Your task to perform on an android device: Open maps Image 0: 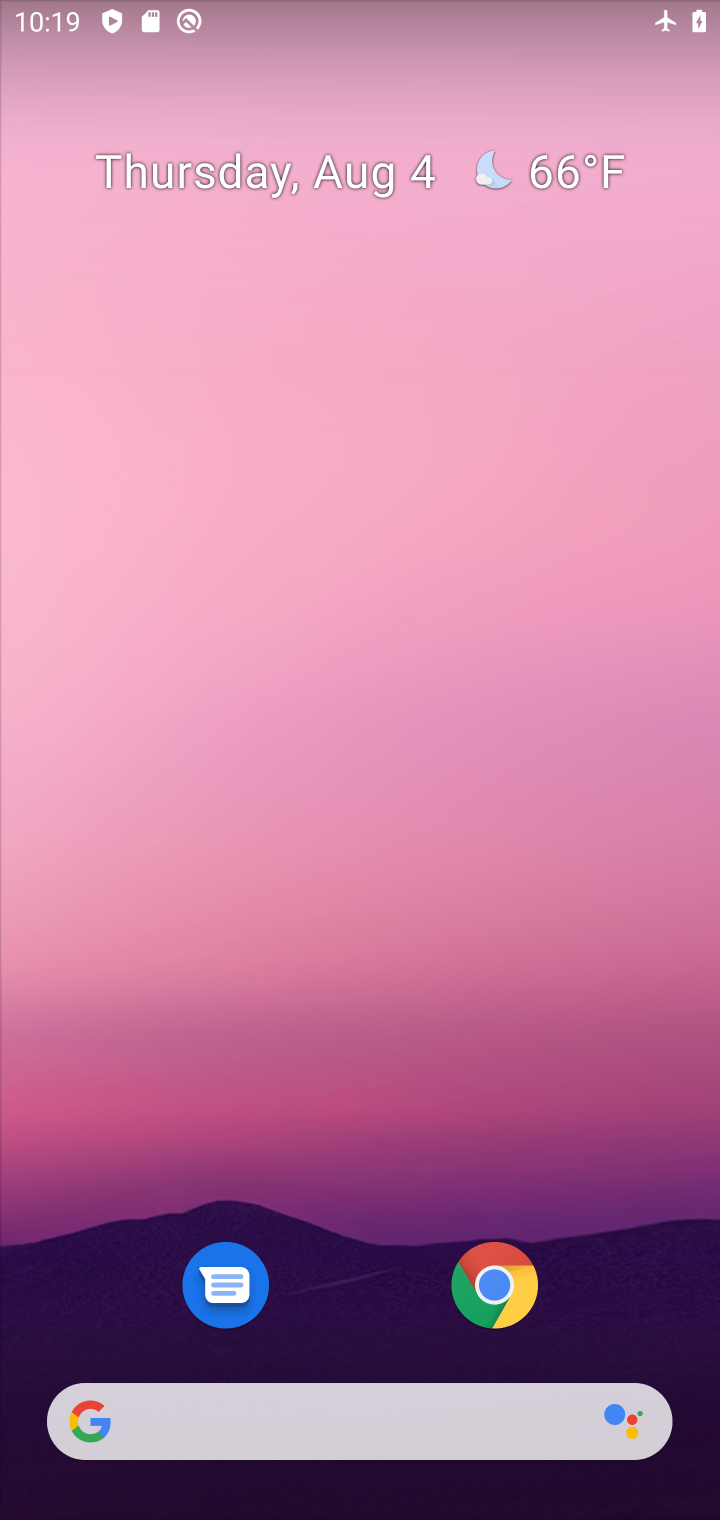
Step 0: press home button
Your task to perform on an android device: Open maps Image 1: 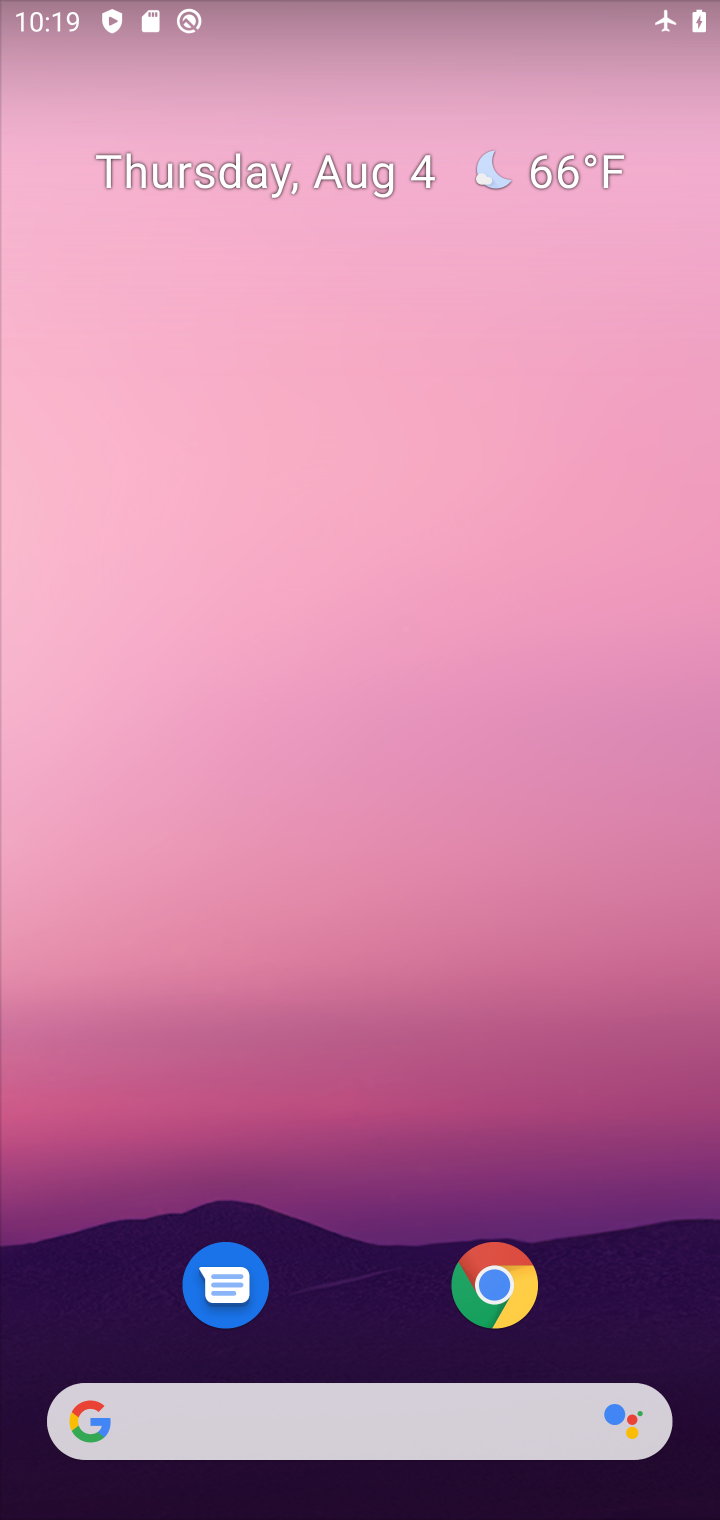
Step 1: drag from (421, 1216) to (573, 92)
Your task to perform on an android device: Open maps Image 2: 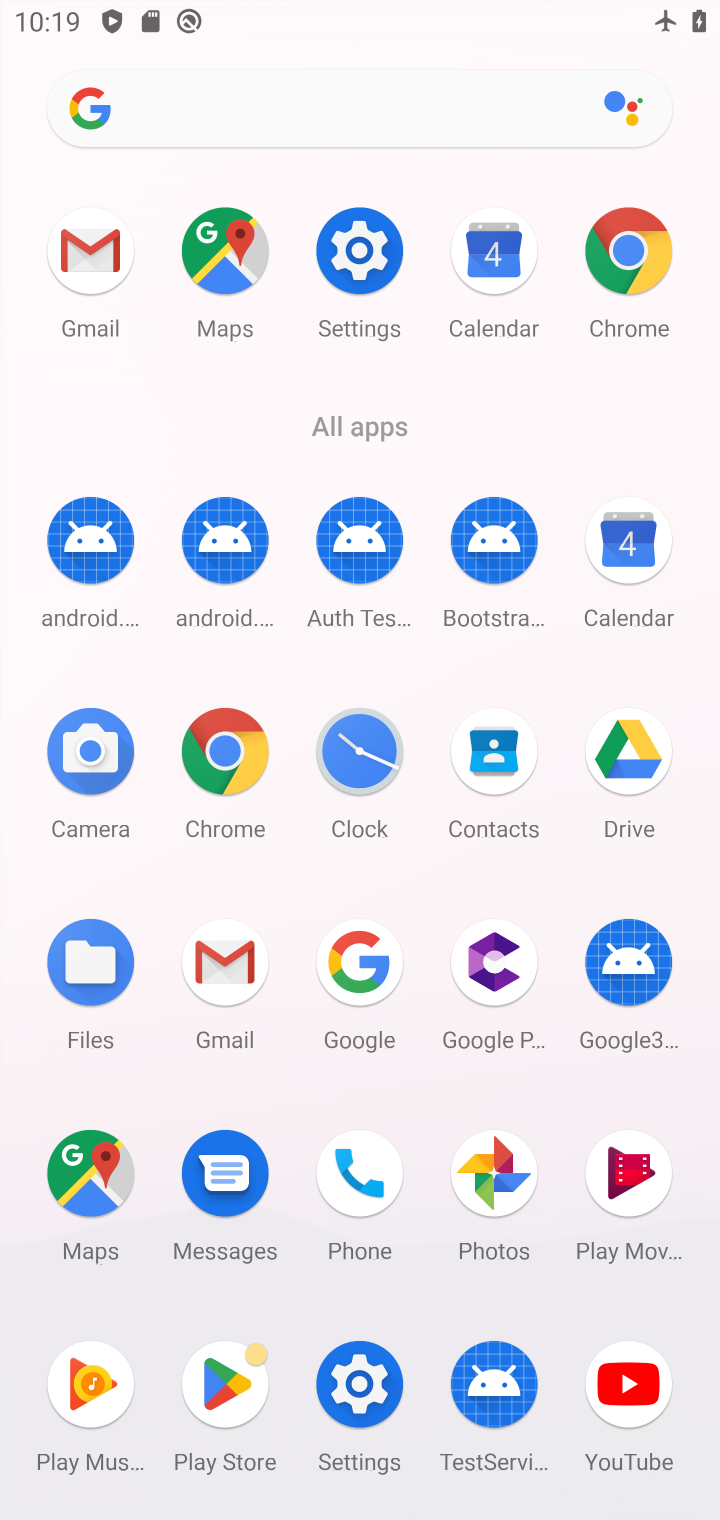
Step 2: click (225, 242)
Your task to perform on an android device: Open maps Image 3: 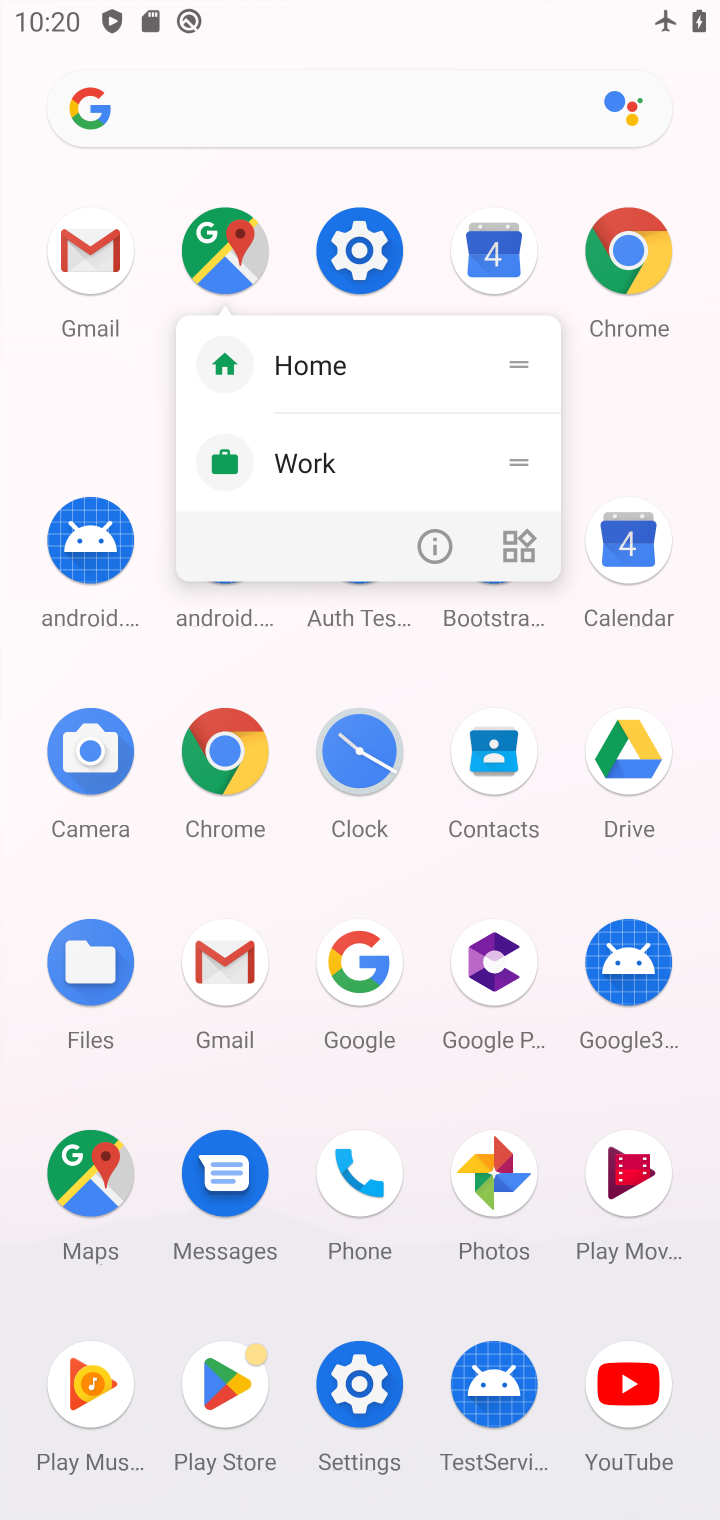
Step 3: click (231, 253)
Your task to perform on an android device: Open maps Image 4: 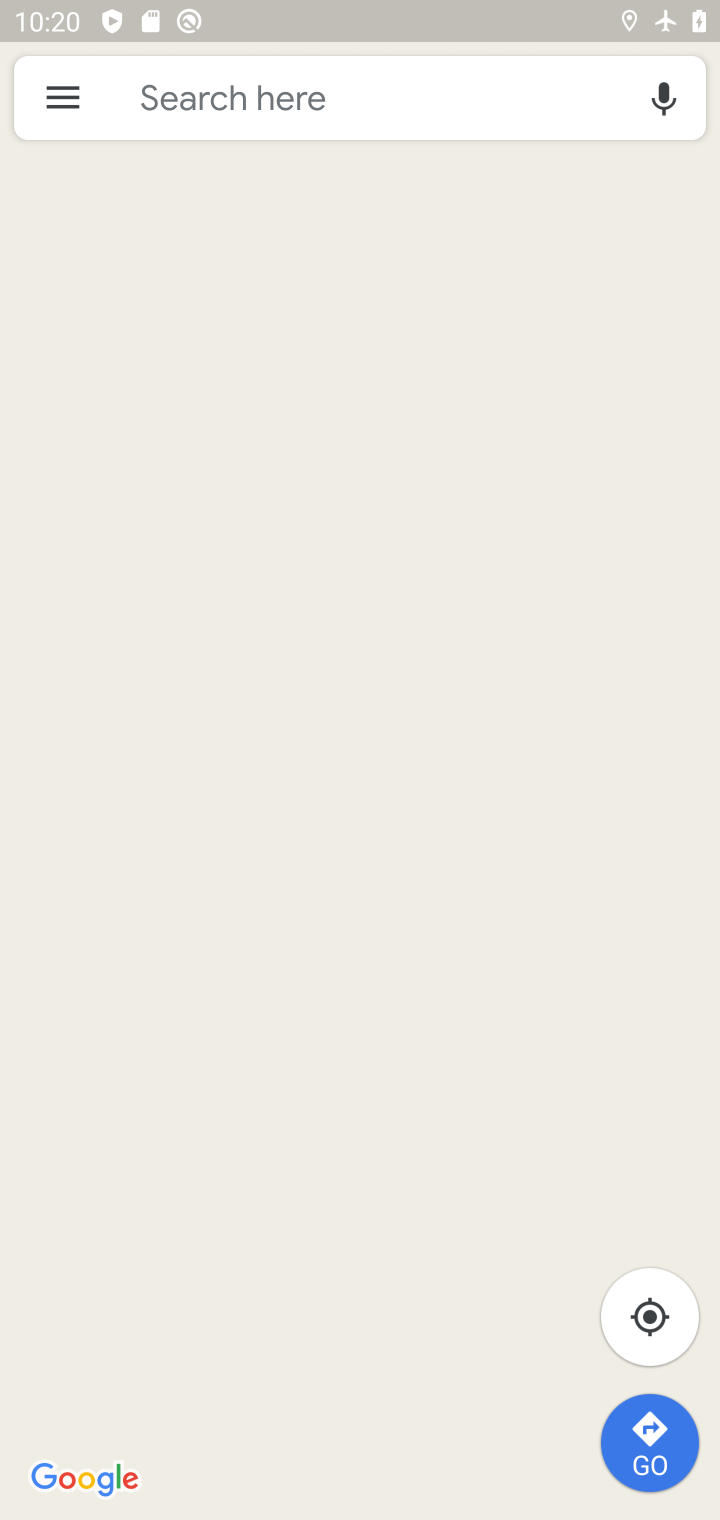
Step 4: task complete